Your task to perform on an android device: Go to privacy settings Image 0: 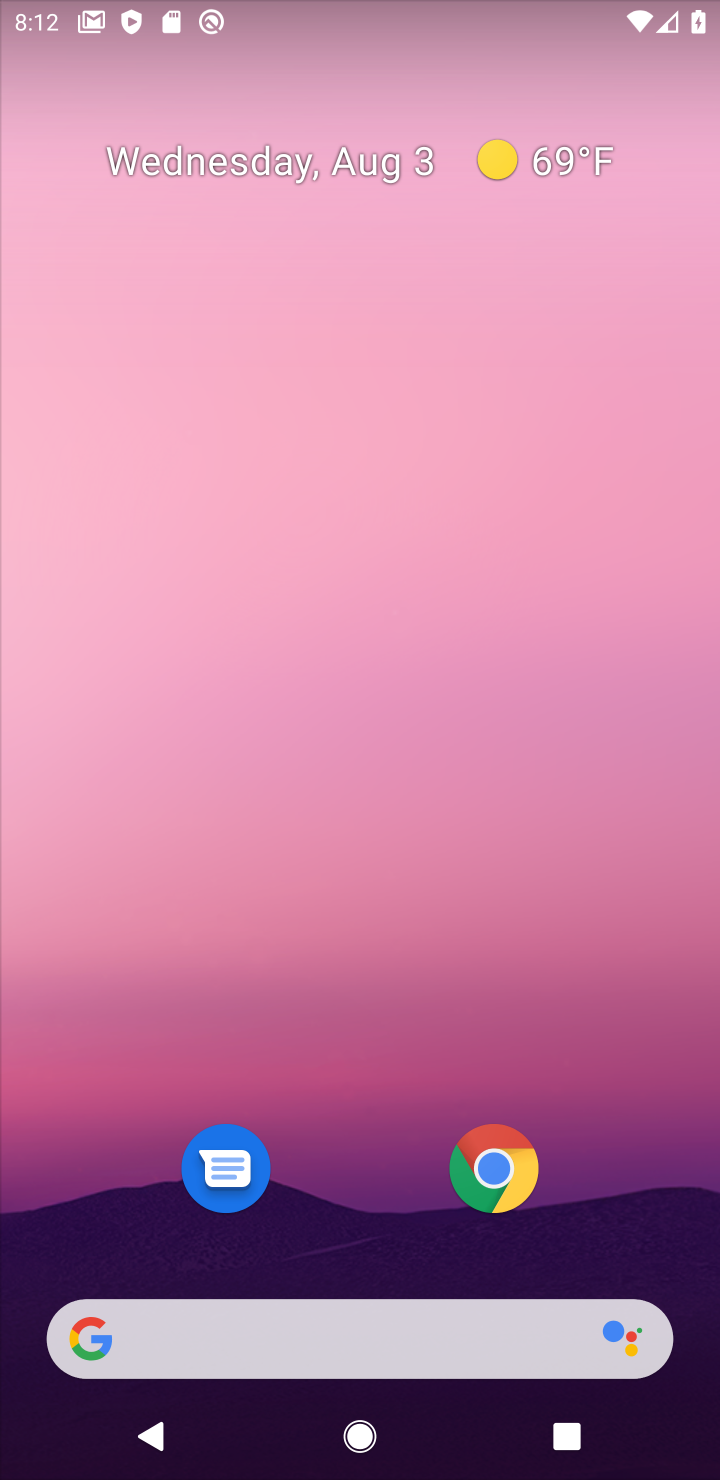
Step 0: drag from (427, 1281) to (286, 94)
Your task to perform on an android device: Go to privacy settings Image 1: 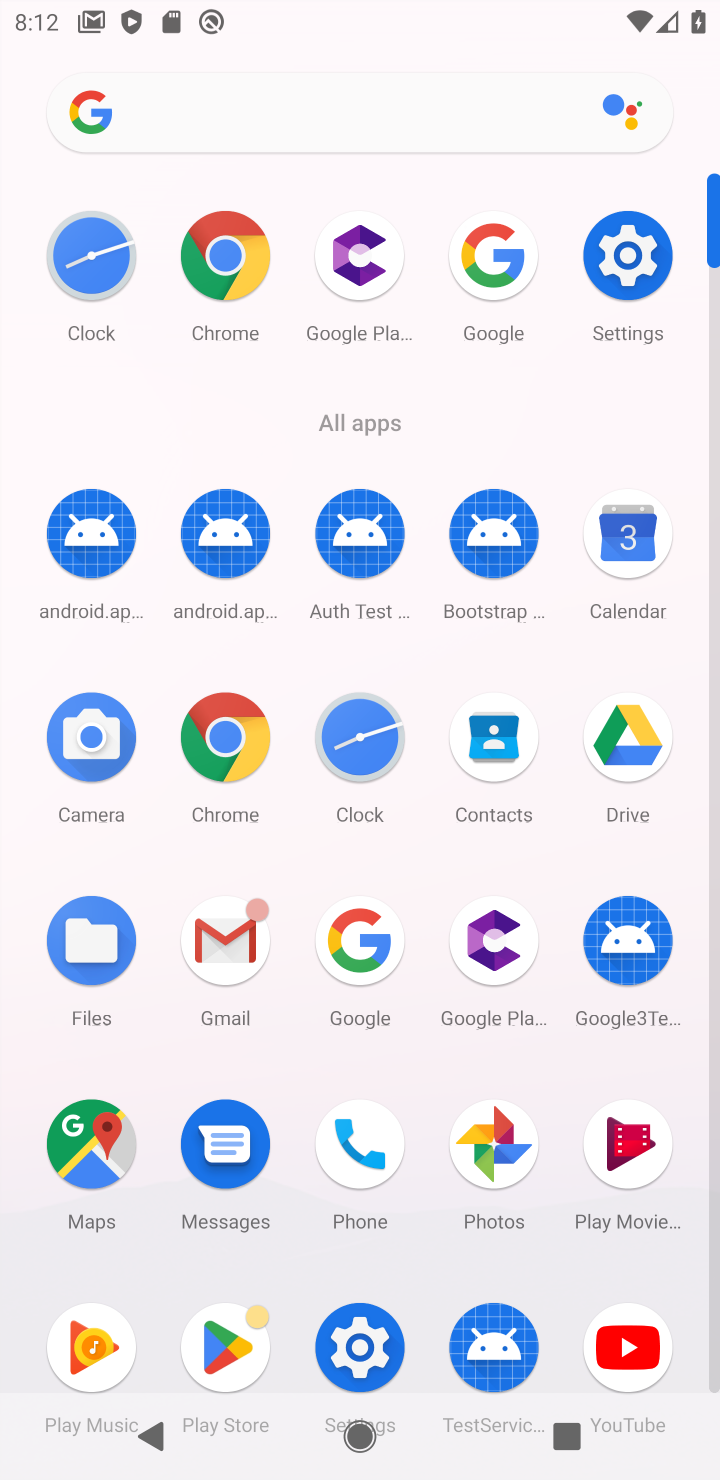
Step 1: click (620, 282)
Your task to perform on an android device: Go to privacy settings Image 2: 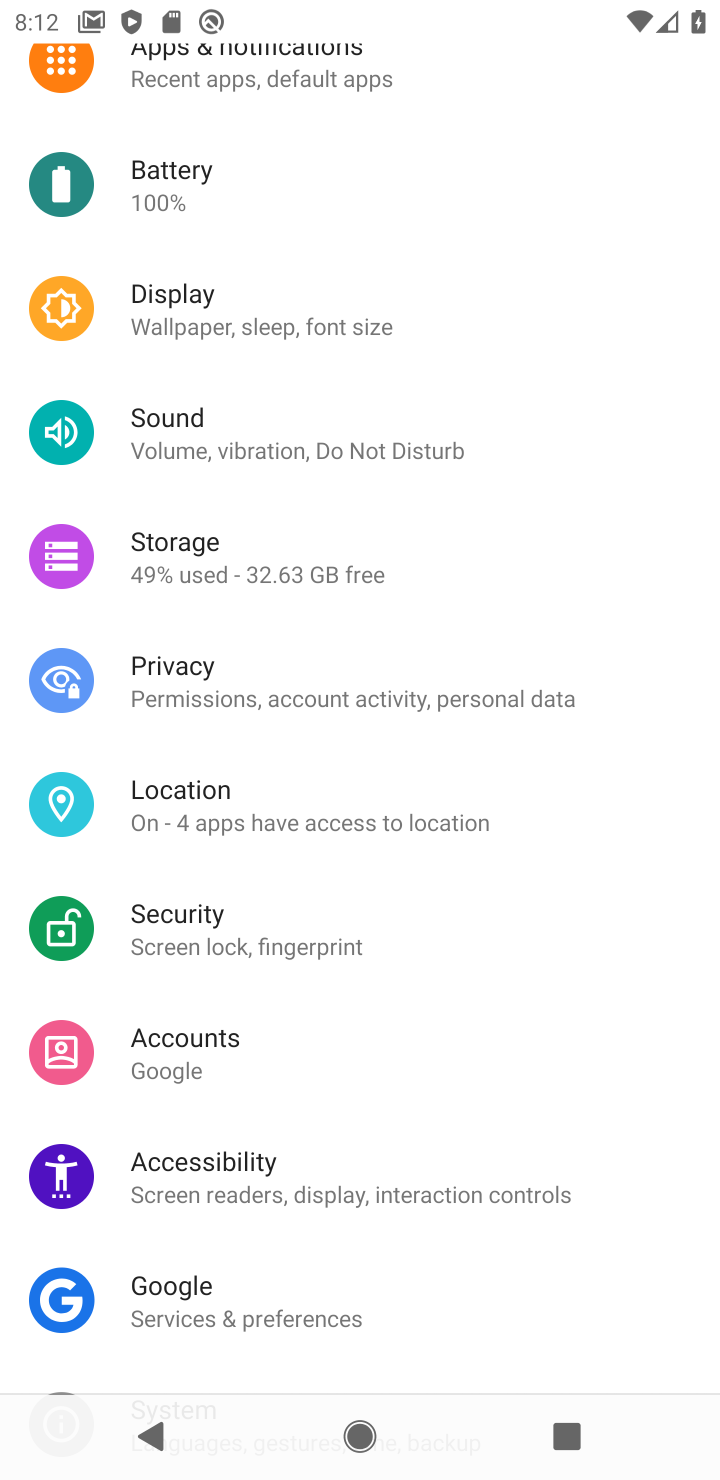
Step 2: click (169, 654)
Your task to perform on an android device: Go to privacy settings Image 3: 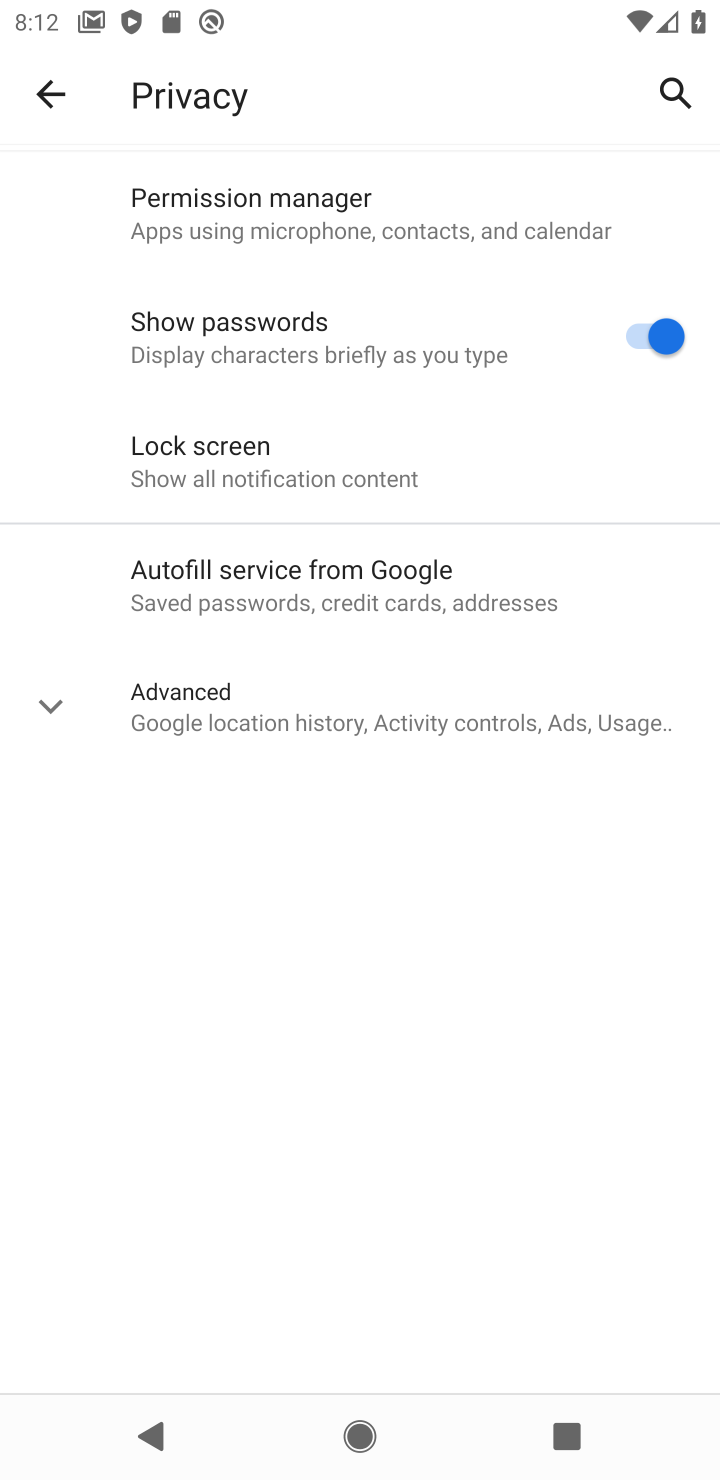
Step 3: click (215, 702)
Your task to perform on an android device: Go to privacy settings Image 4: 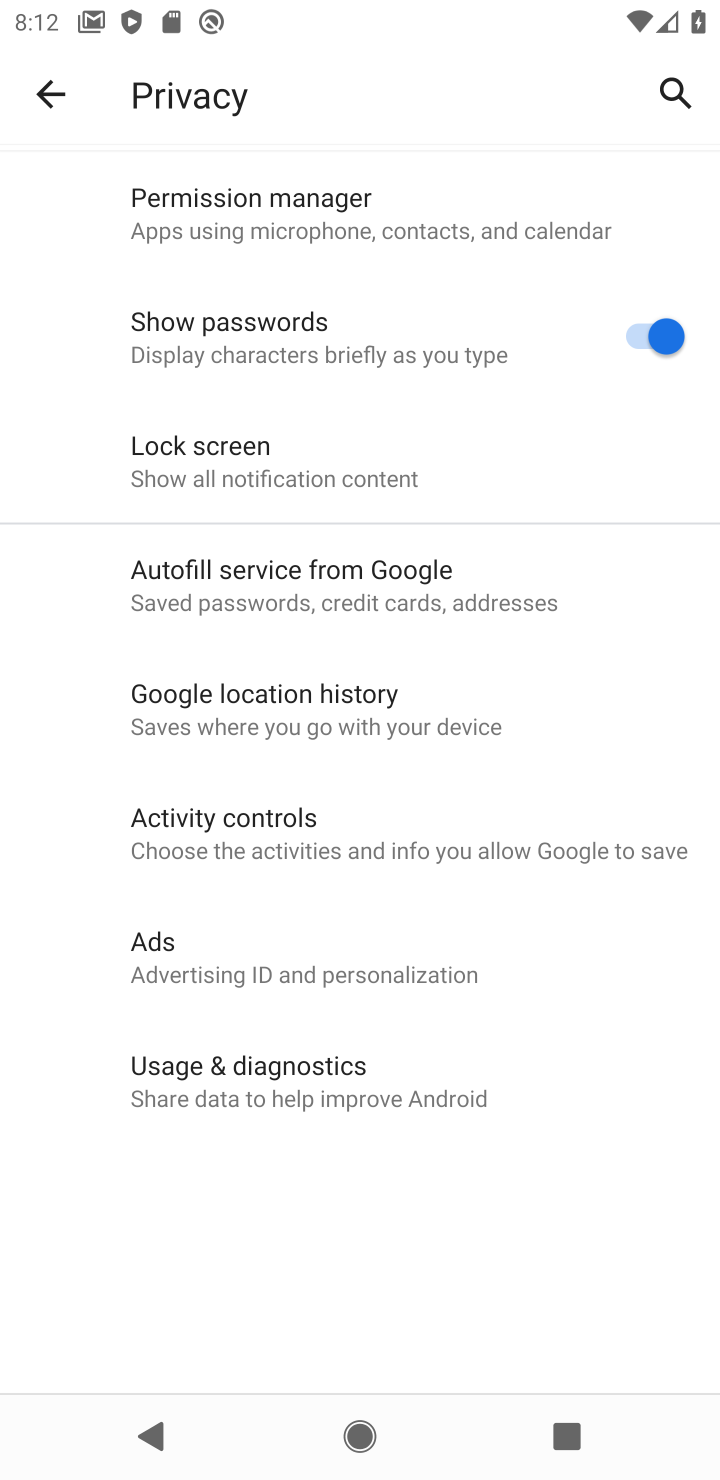
Step 4: task complete